Your task to perform on an android device: Show me recent news Image 0: 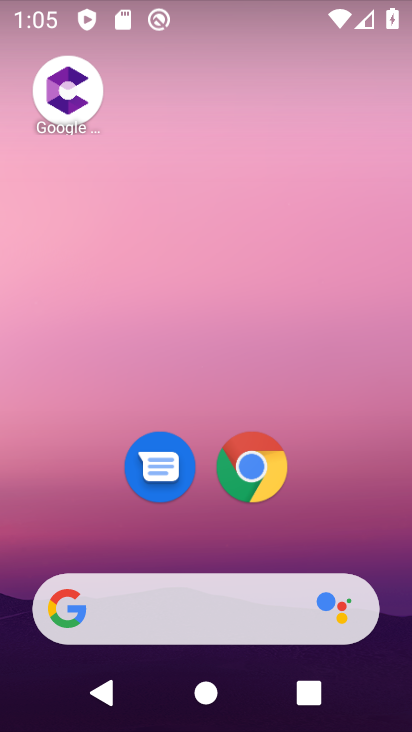
Step 0: drag from (3, 265) to (330, 237)
Your task to perform on an android device: Show me recent news Image 1: 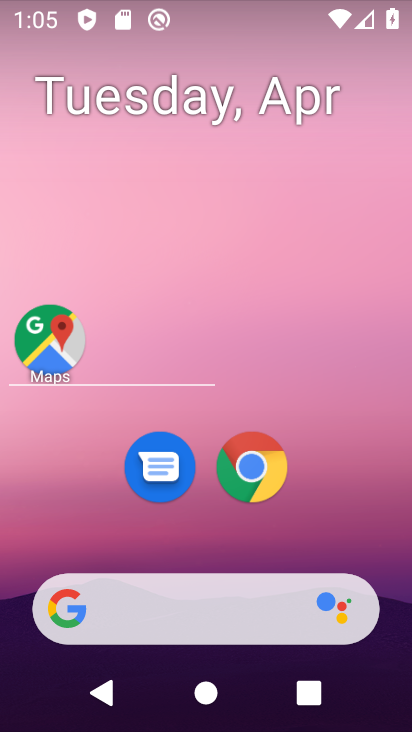
Step 1: task complete